Your task to perform on an android device: set default search engine in the chrome app Image 0: 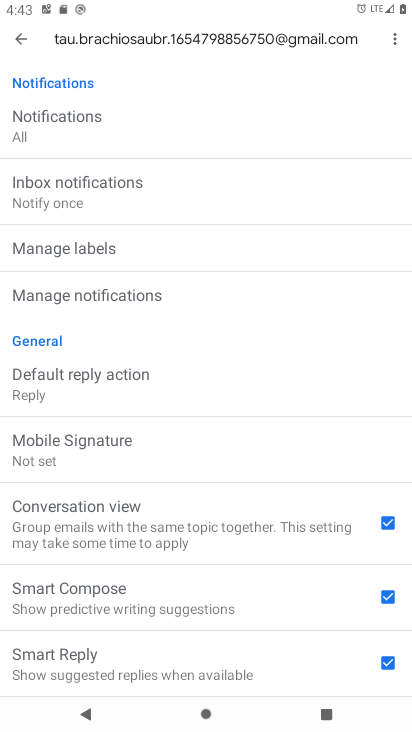
Step 0: press home button
Your task to perform on an android device: set default search engine in the chrome app Image 1: 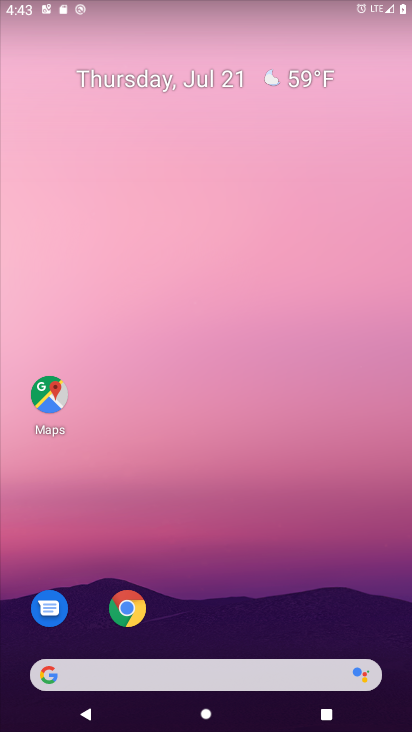
Step 1: drag from (224, 684) to (245, 0)
Your task to perform on an android device: set default search engine in the chrome app Image 2: 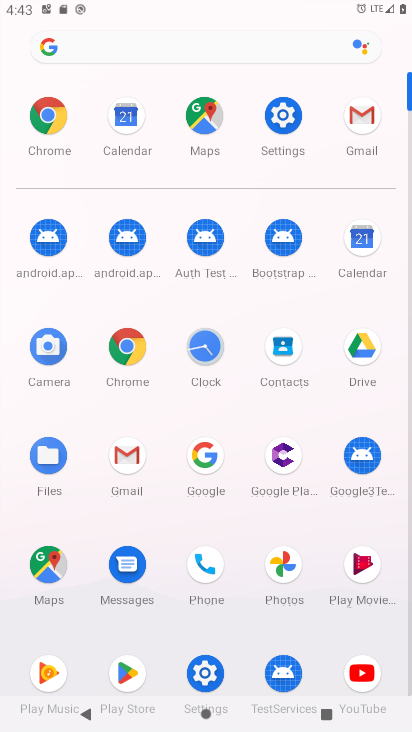
Step 2: click (132, 340)
Your task to perform on an android device: set default search engine in the chrome app Image 3: 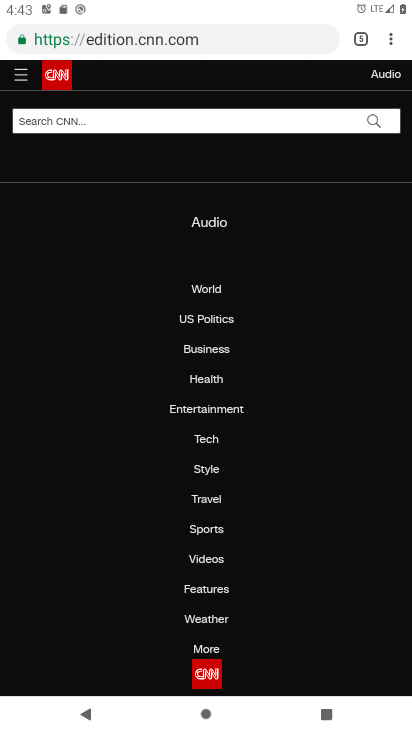
Step 3: drag from (391, 39) to (251, 469)
Your task to perform on an android device: set default search engine in the chrome app Image 4: 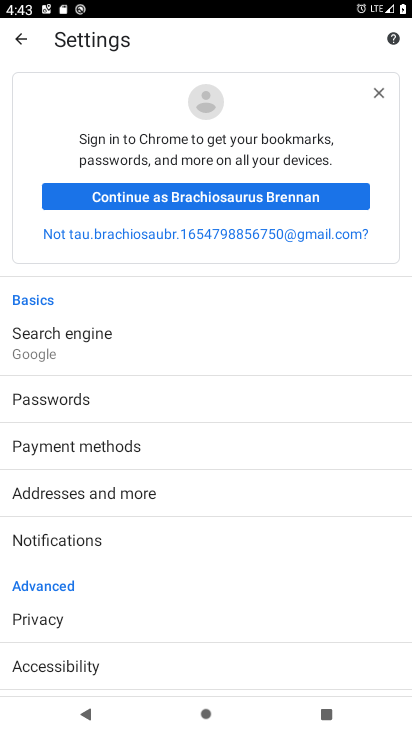
Step 4: click (108, 356)
Your task to perform on an android device: set default search engine in the chrome app Image 5: 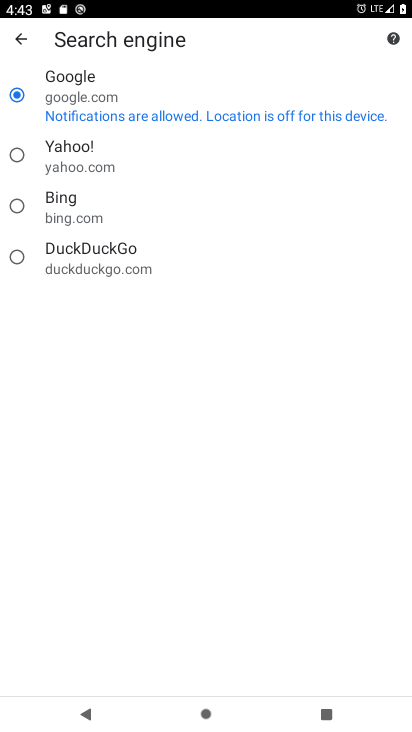
Step 5: task complete